Your task to perform on an android device: Show me recent news Image 0: 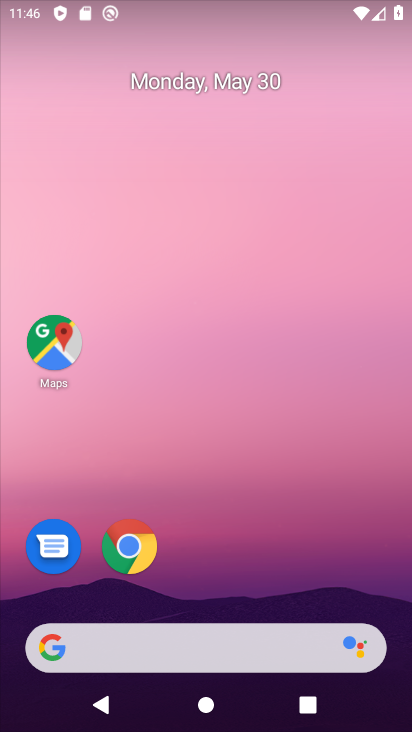
Step 0: drag from (276, 677) to (258, 141)
Your task to perform on an android device: Show me recent news Image 1: 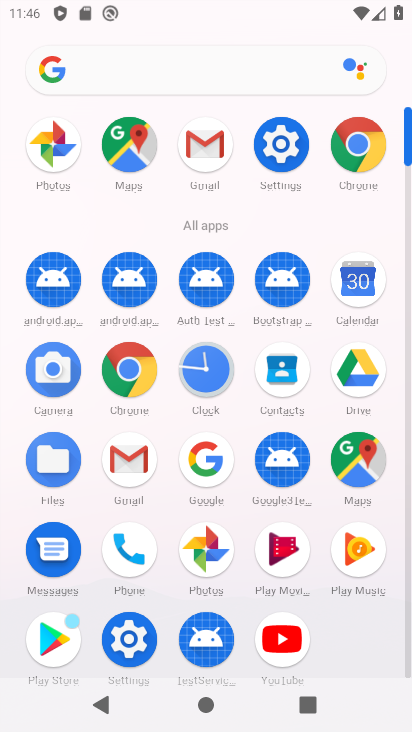
Step 1: task complete